Your task to perform on an android device: check data usage Image 0: 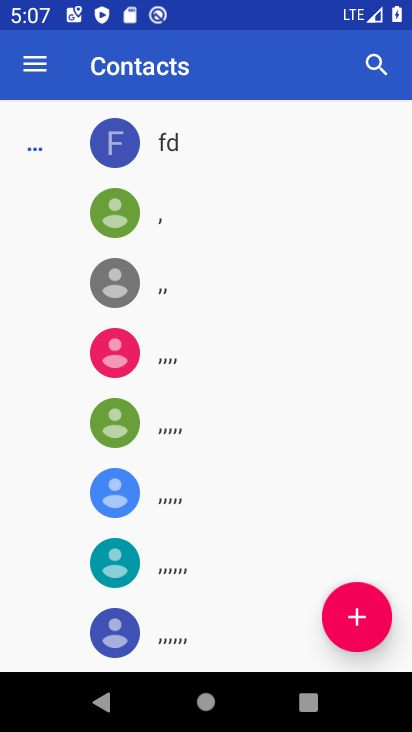
Step 0: press home button
Your task to perform on an android device: check data usage Image 1: 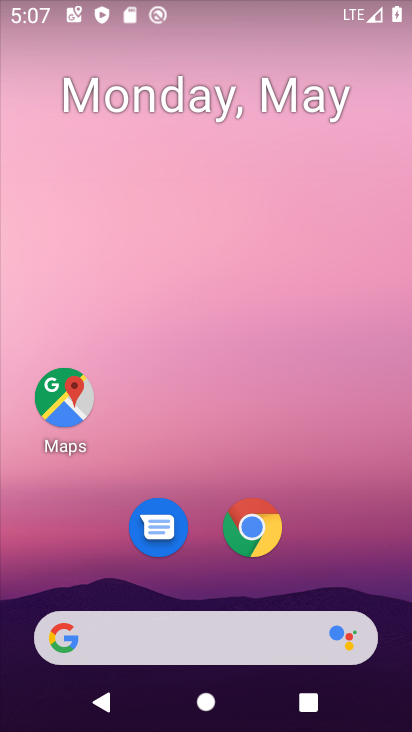
Step 1: drag from (408, 540) to (381, 112)
Your task to perform on an android device: check data usage Image 2: 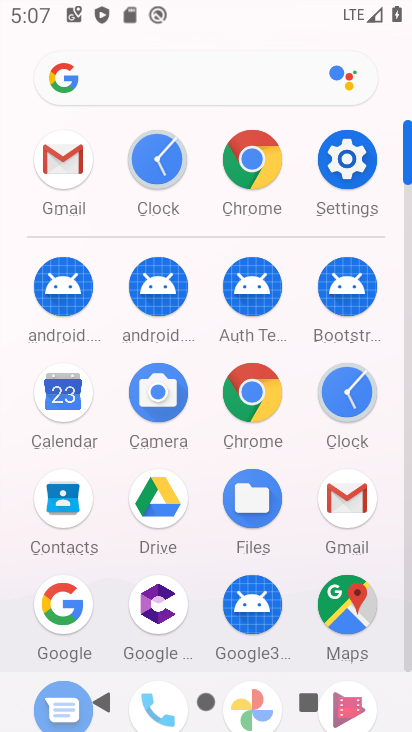
Step 2: click (334, 167)
Your task to perform on an android device: check data usage Image 3: 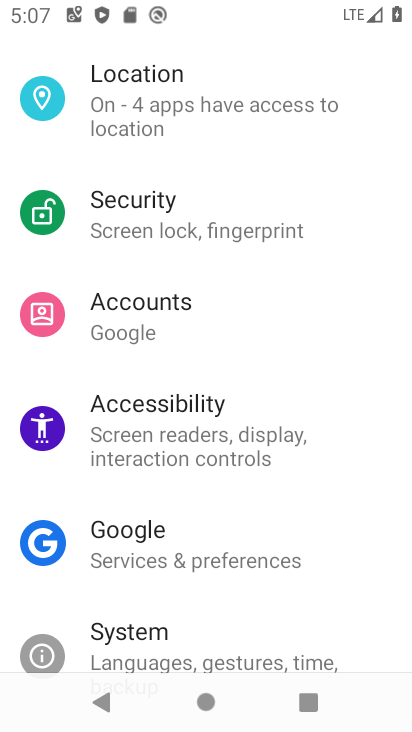
Step 3: drag from (274, 107) to (294, 720)
Your task to perform on an android device: check data usage Image 4: 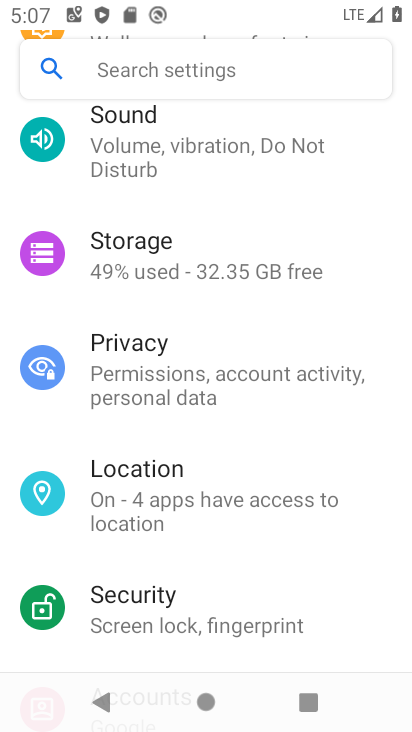
Step 4: drag from (285, 262) to (265, 710)
Your task to perform on an android device: check data usage Image 5: 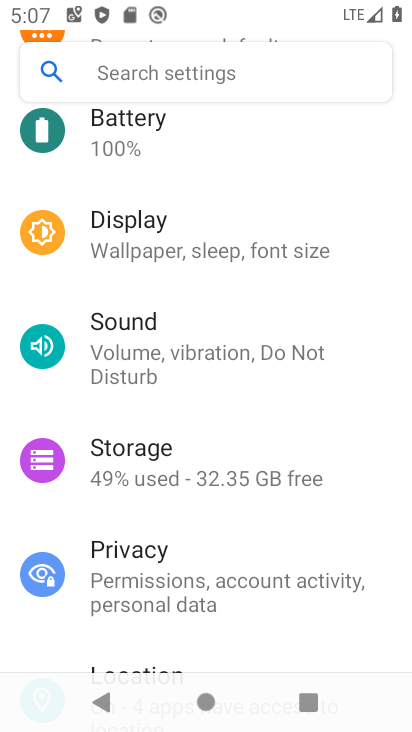
Step 5: drag from (231, 145) to (250, 723)
Your task to perform on an android device: check data usage Image 6: 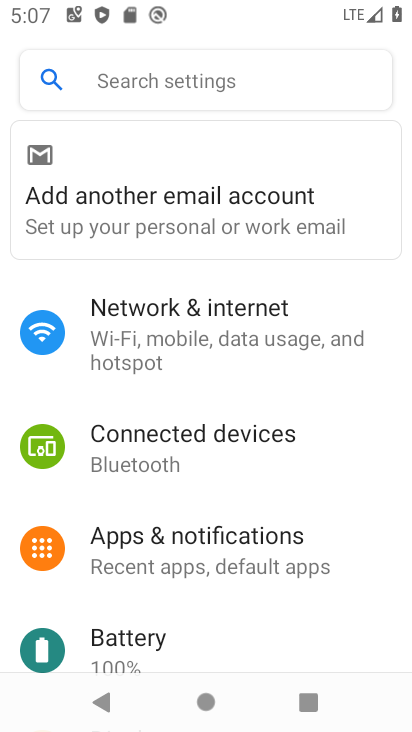
Step 6: click (133, 313)
Your task to perform on an android device: check data usage Image 7: 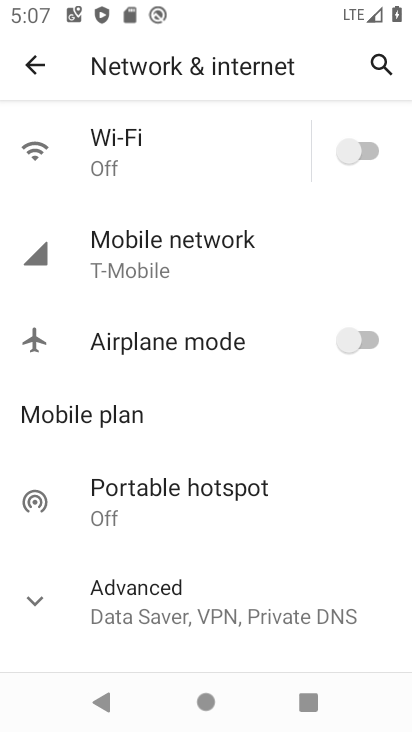
Step 7: click (122, 253)
Your task to perform on an android device: check data usage Image 8: 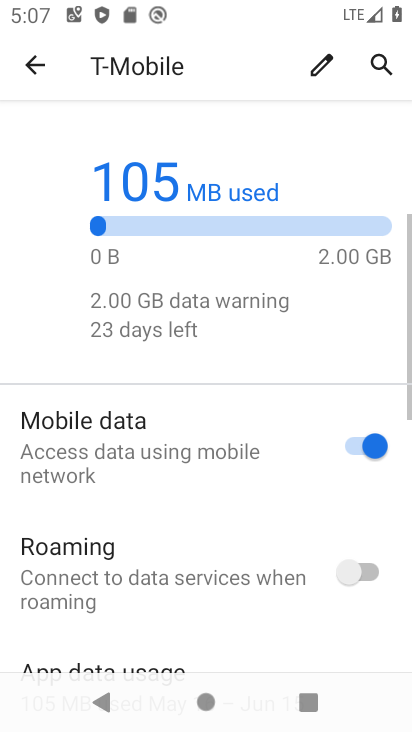
Step 8: task complete